Your task to perform on an android device: Open calendar and show me the first week of next month Image 0: 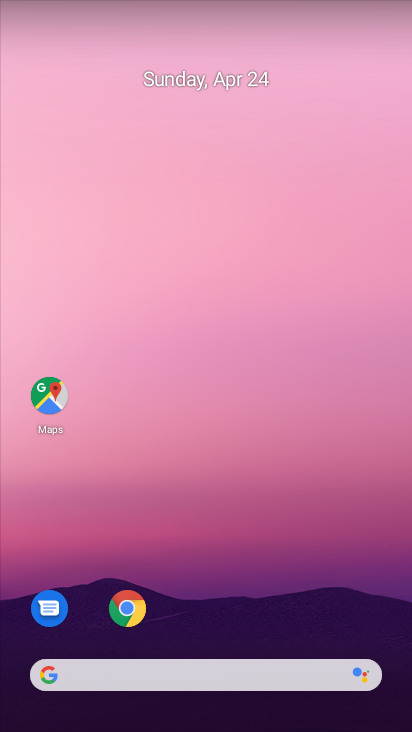
Step 0: drag from (274, 380) to (293, 88)
Your task to perform on an android device: Open calendar and show me the first week of next month Image 1: 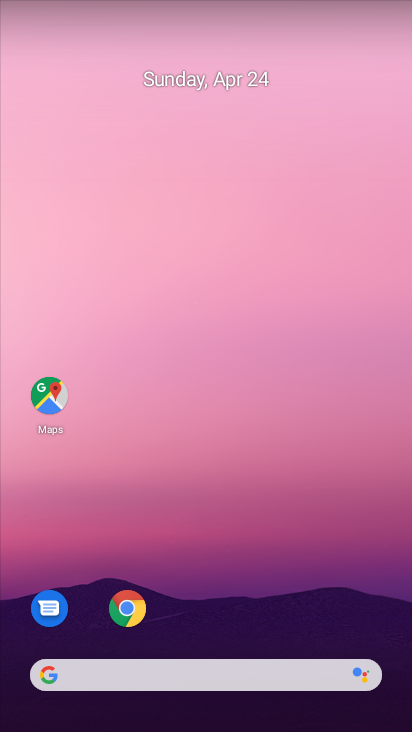
Step 1: drag from (239, 599) to (260, 55)
Your task to perform on an android device: Open calendar and show me the first week of next month Image 2: 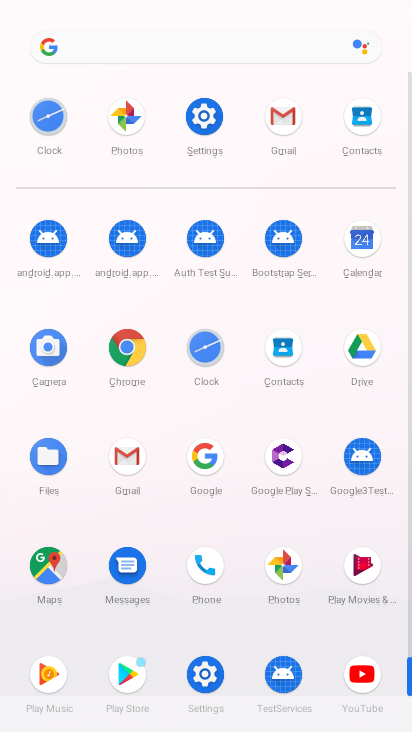
Step 2: click (370, 242)
Your task to perform on an android device: Open calendar and show me the first week of next month Image 3: 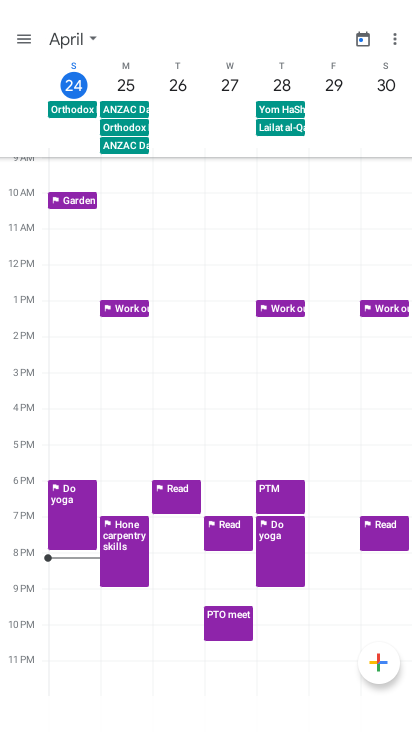
Step 3: task complete